Your task to perform on an android device: Open the Play Movies app and select the watchlist tab. Image 0: 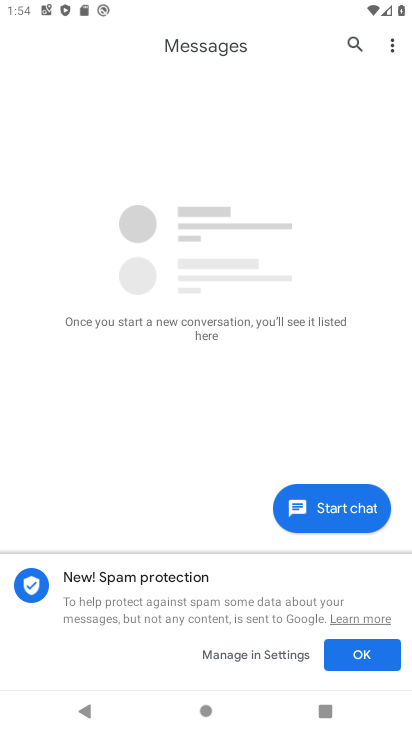
Step 0: press home button
Your task to perform on an android device: Open the Play Movies app and select the watchlist tab. Image 1: 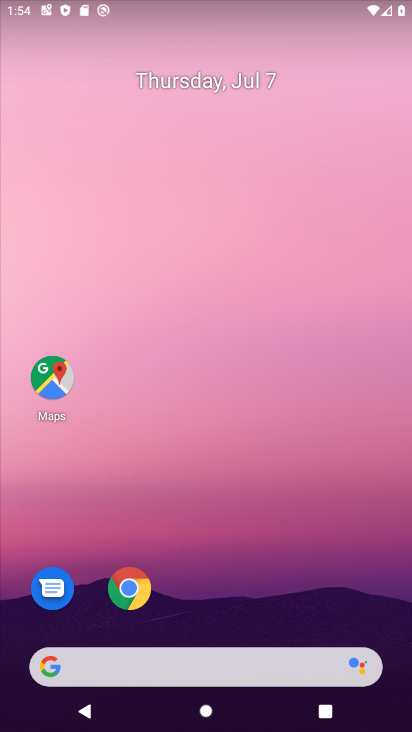
Step 1: drag from (86, 273) to (97, 18)
Your task to perform on an android device: Open the Play Movies app and select the watchlist tab. Image 2: 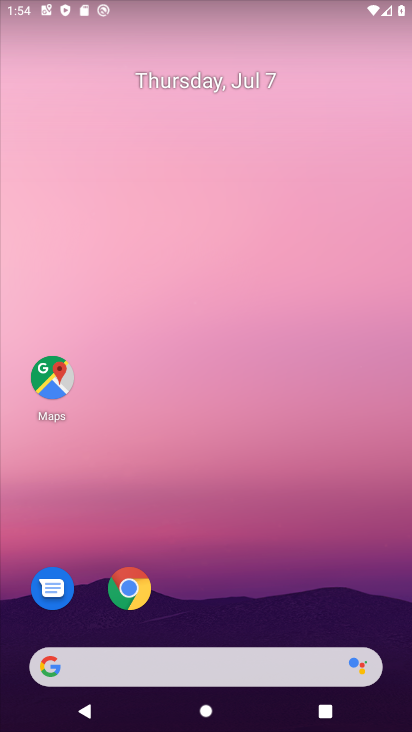
Step 2: drag from (5, 709) to (229, 12)
Your task to perform on an android device: Open the Play Movies app and select the watchlist tab. Image 3: 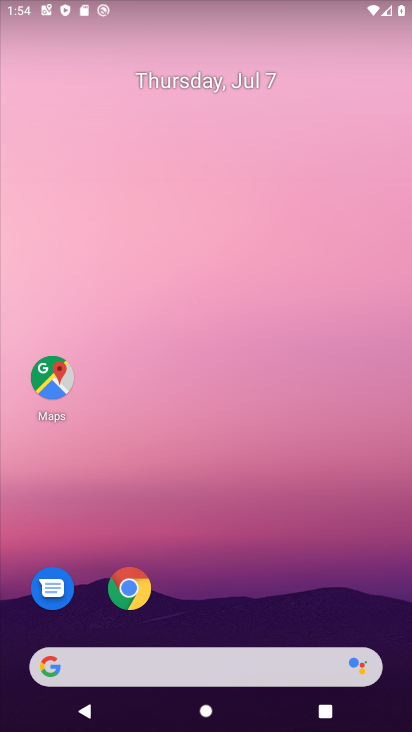
Step 3: drag from (41, 707) to (139, 49)
Your task to perform on an android device: Open the Play Movies app and select the watchlist tab. Image 4: 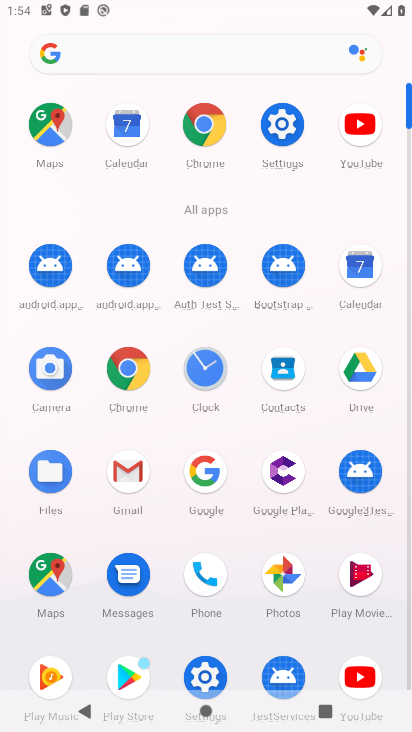
Step 4: click (356, 583)
Your task to perform on an android device: Open the Play Movies app and select the watchlist tab. Image 5: 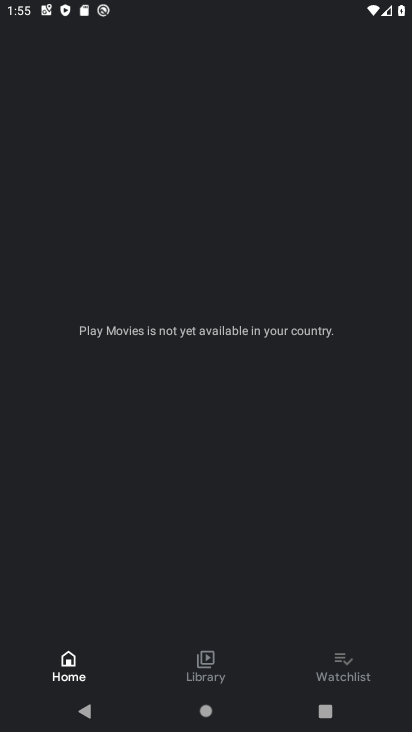
Step 5: click (352, 666)
Your task to perform on an android device: Open the Play Movies app and select the watchlist tab. Image 6: 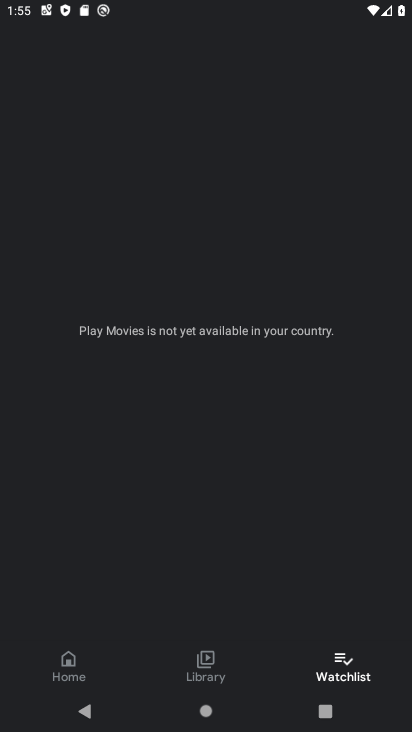
Step 6: task complete